Your task to perform on an android device: Open maps Image 0: 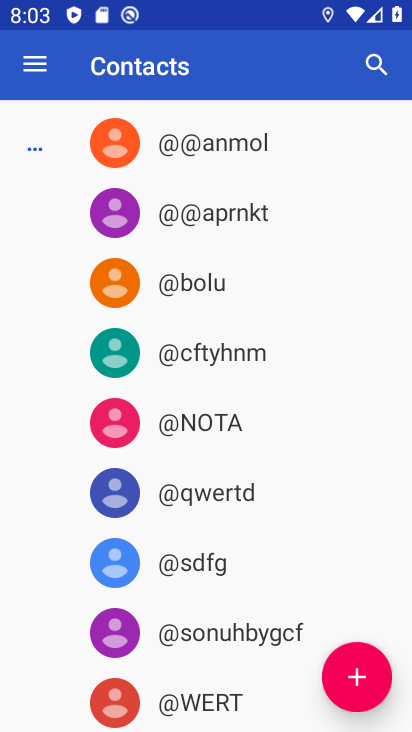
Step 0: press home button
Your task to perform on an android device: Open maps Image 1: 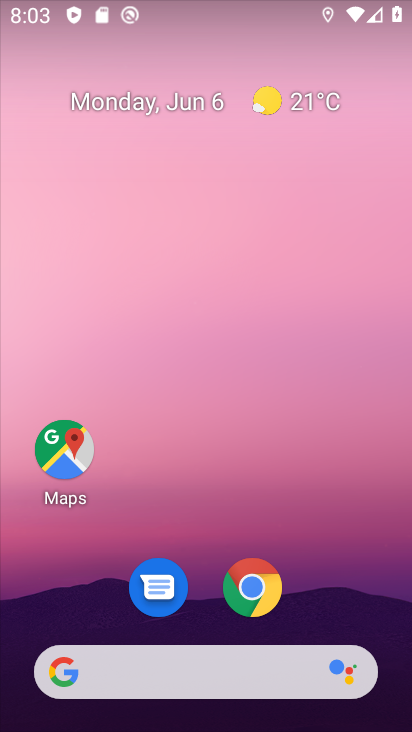
Step 1: click (67, 451)
Your task to perform on an android device: Open maps Image 2: 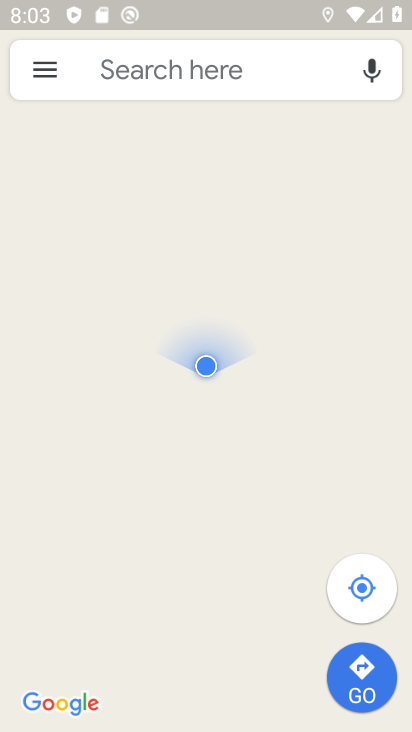
Step 2: task complete